Your task to perform on an android device: open sync settings in chrome Image 0: 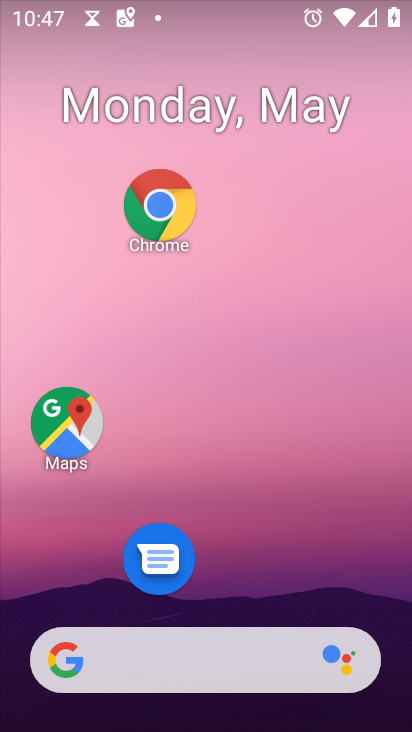
Step 0: drag from (242, 713) to (212, 237)
Your task to perform on an android device: open sync settings in chrome Image 1: 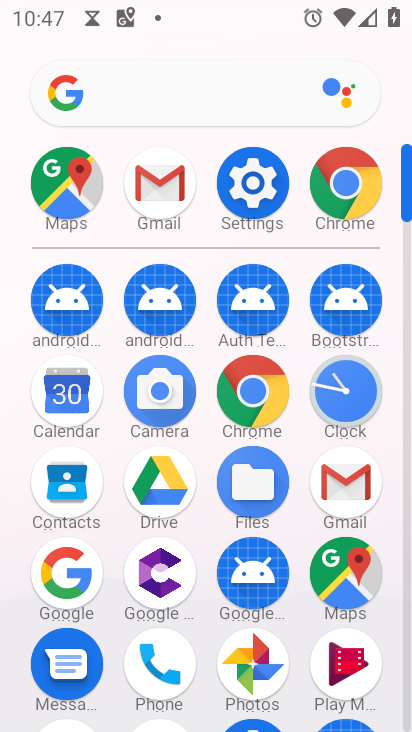
Step 1: click (330, 182)
Your task to perform on an android device: open sync settings in chrome Image 2: 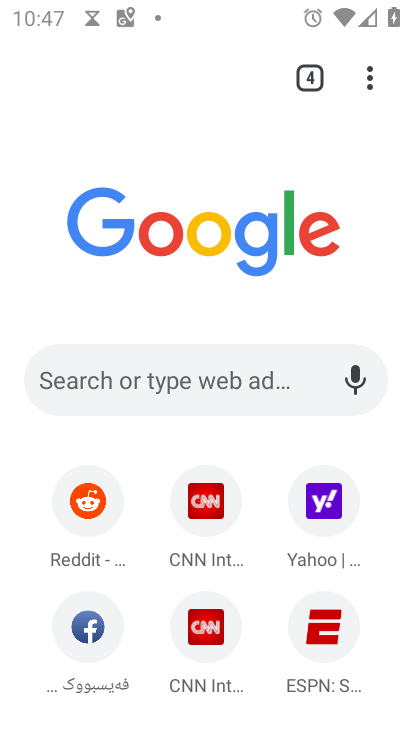
Step 2: click (330, 182)
Your task to perform on an android device: open sync settings in chrome Image 3: 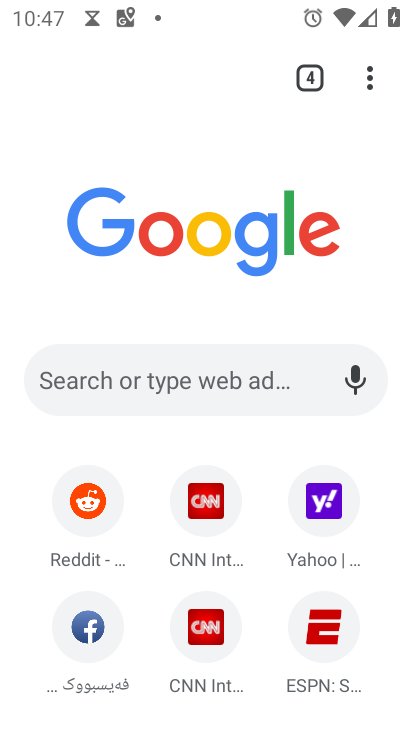
Step 3: click (372, 79)
Your task to perform on an android device: open sync settings in chrome Image 4: 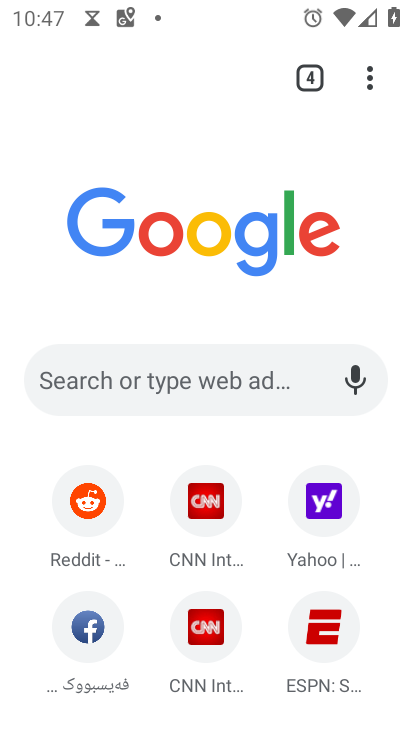
Step 4: drag from (372, 79) to (82, 608)
Your task to perform on an android device: open sync settings in chrome Image 5: 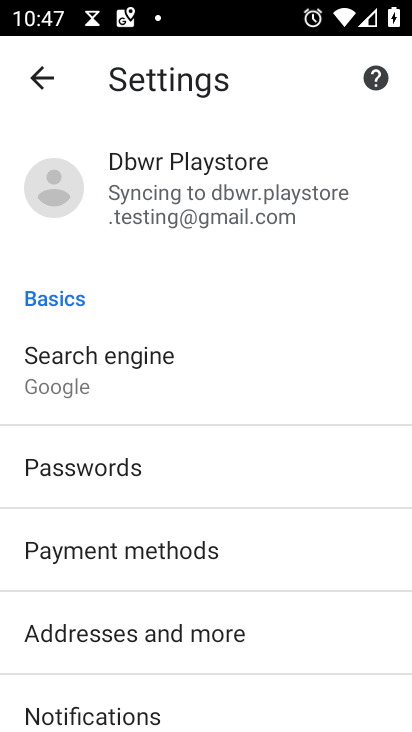
Step 5: drag from (132, 560) to (87, 176)
Your task to perform on an android device: open sync settings in chrome Image 6: 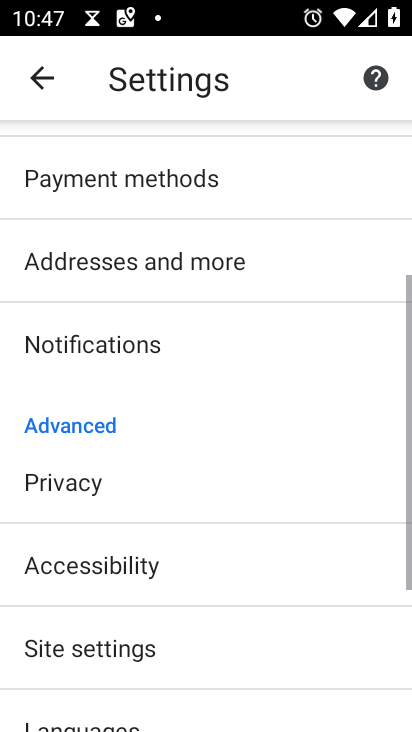
Step 6: drag from (139, 527) to (135, 219)
Your task to perform on an android device: open sync settings in chrome Image 7: 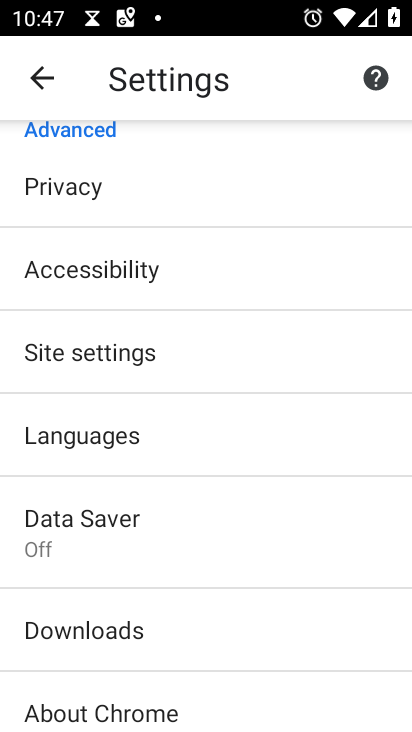
Step 7: click (75, 351)
Your task to perform on an android device: open sync settings in chrome Image 8: 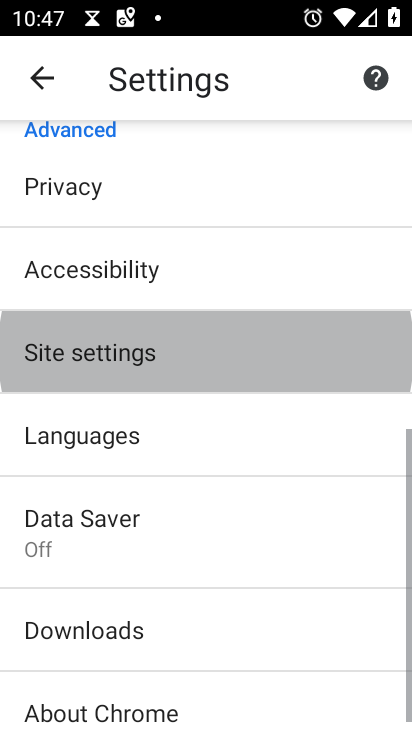
Step 8: click (75, 351)
Your task to perform on an android device: open sync settings in chrome Image 9: 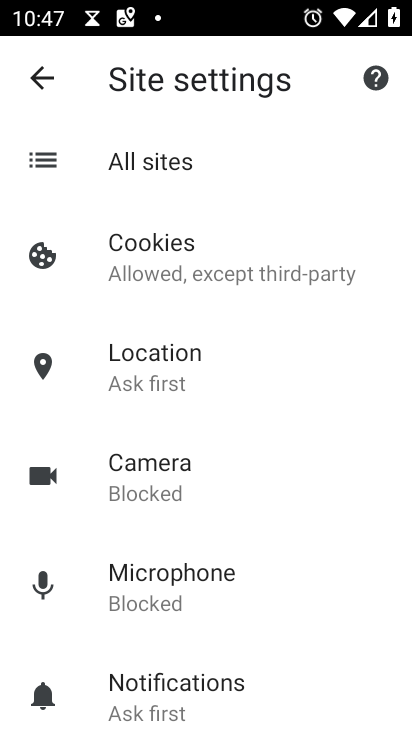
Step 9: drag from (163, 623) to (175, 235)
Your task to perform on an android device: open sync settings in chrome Image 10: 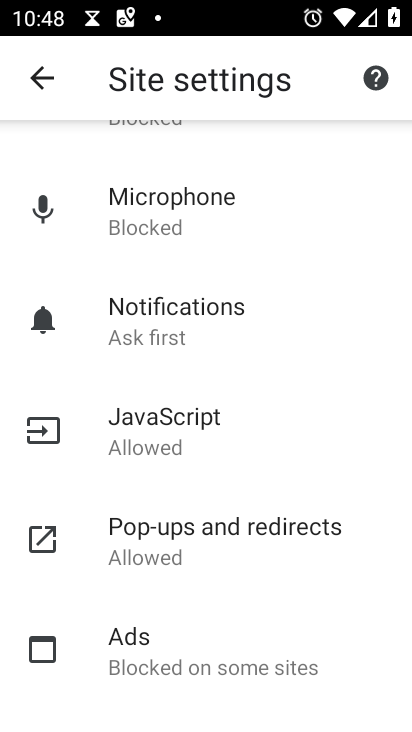
Step 10: drag from (172, 537) to (171, 188)
Your task to perform on an android device: open sync settings in chrome Image 11: 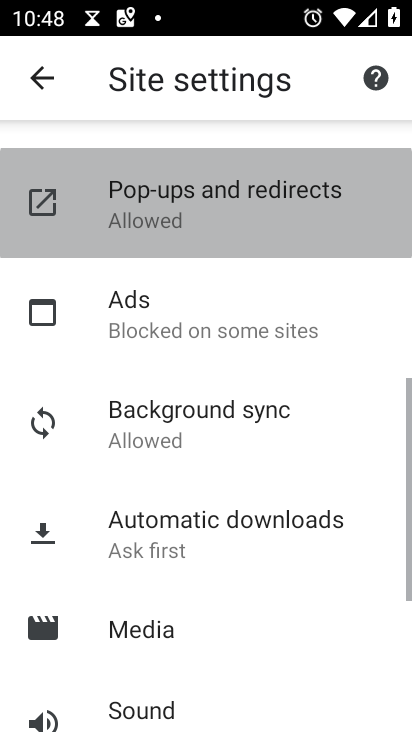
Step 11: drag from (188, 412) to (192, 163)
Your task to perform on an android device: open sync settings in chrome Image 12: 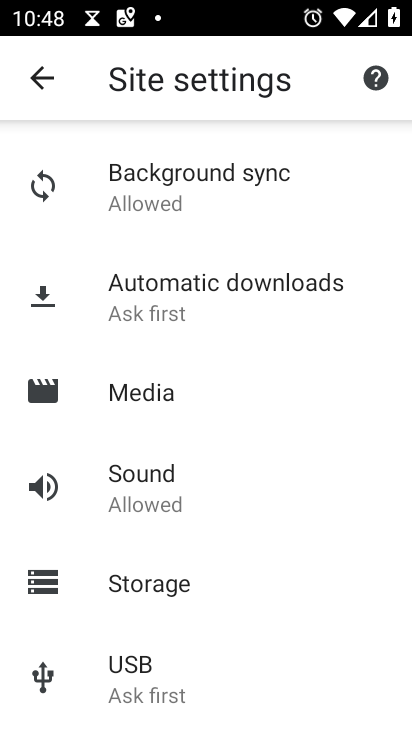
Step 12: click (135, 197)
Your task to perform on an android device: open sync settings in chrome Image 13: 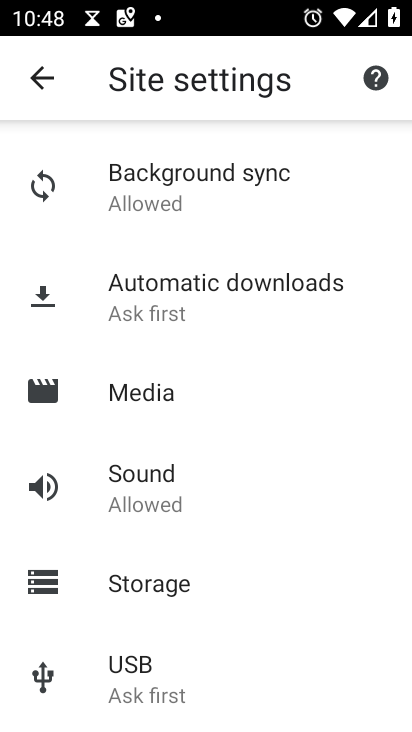
Step 13: click (136, 196)
Your task to perform on an android device: open sync settings in chrome Image 14: 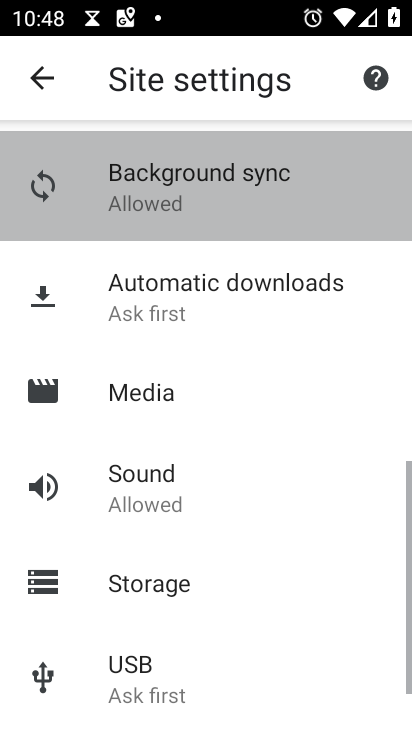
Step 14: click (136, 196)
Your task to perform on an android device: open sync settings in chrome Image 15: 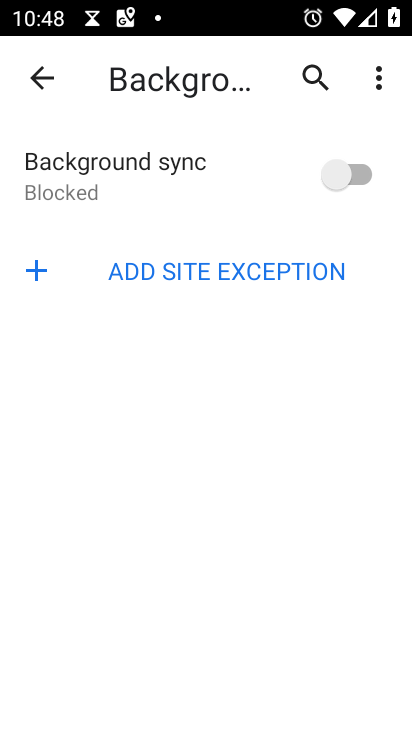
Step 15: task complete